Your task to perform on an android device: Search for apple airpods pro on target.com, select the first entry, add it to the cart, then select checkout. Image 0: 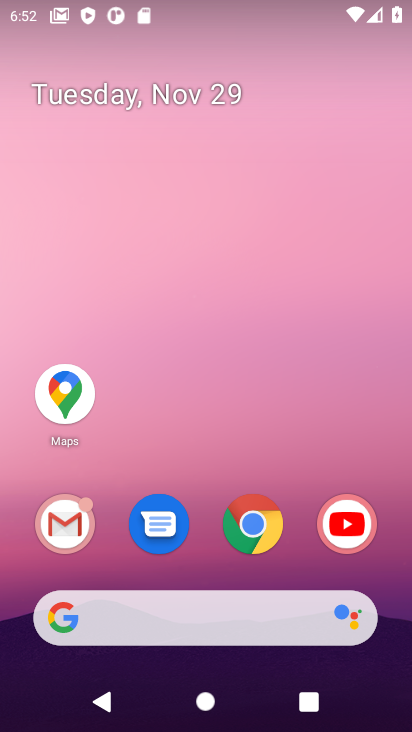
Step 0: click (254, 532)
Your task to perform on an android device: Search for apple airpods pro on target.com, select the first entry, add it to the cart, then select checkout. Image 1: 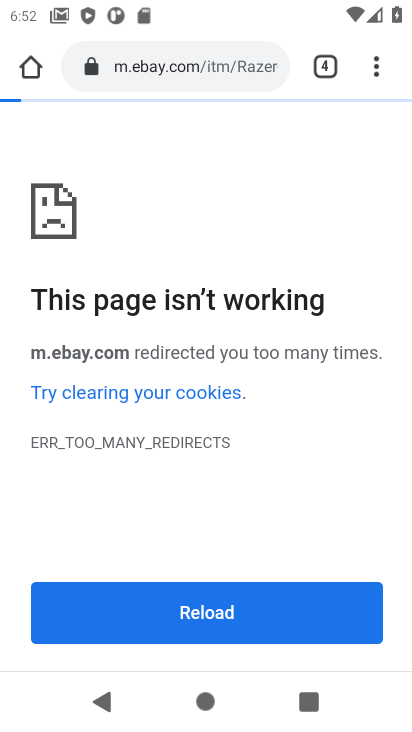
Step 1: click (155, 66)
Your task to perform on an android device: Search for apple airpods pro on target.com, select the first entry, add it to the cart, then select checkout. Image 2: 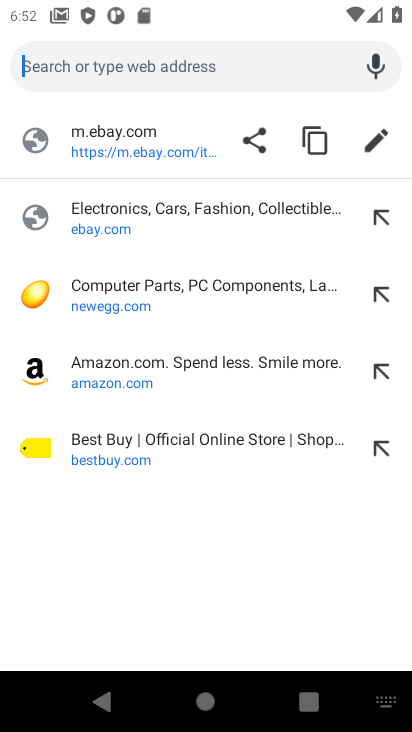
Step 2: type "target.com"
Your task to perform on an android device: Search for apple airpods pro on target.com, select the first entry, add it to the cart, then select checkout. Image 3: 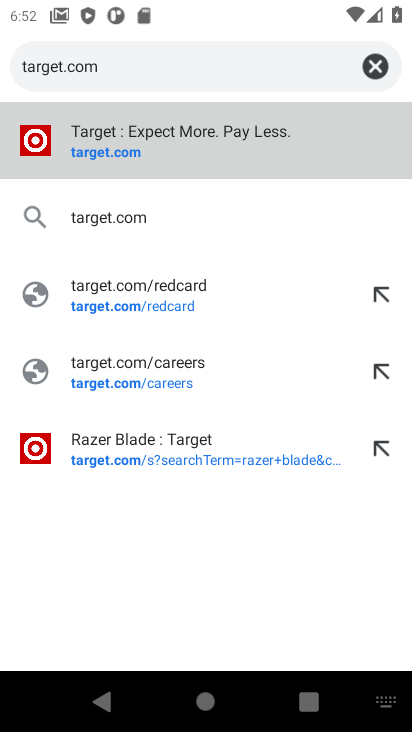
Step 3: click (95, 149)
Your task to perform on an android device: Search for apple airpods pro on target.com, select the first entry, add it to the cart, then select checkout. Image 4: 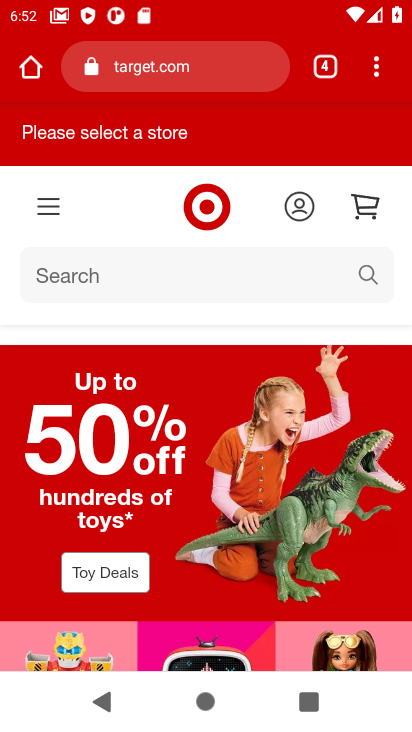
Step 4: click (48, 272)
Your task to perform on an android device: Search for apple airpods pro on target.com, select the first entry, add it to the cart, then select checkout. Image 5: 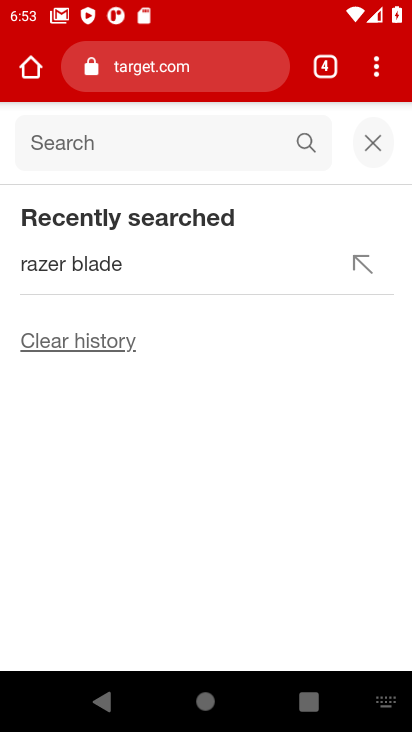
Step 5: type " apple airpods pro"
Your task to perform on an android device: Search for apple airpods pro on target.com, select the first entry, add it to the cart, then select checkout. Image 6: 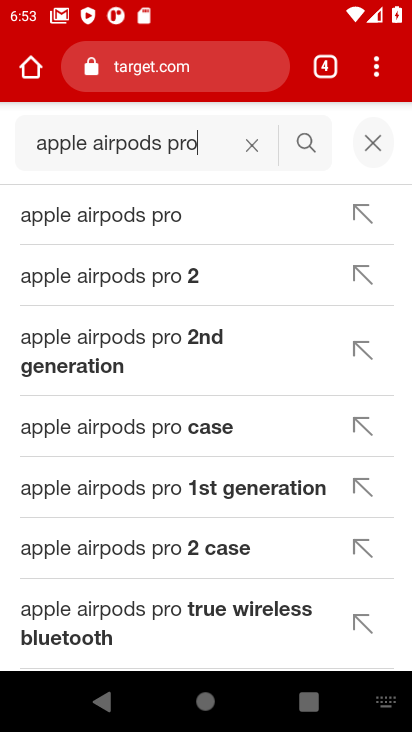
Step 6: click (122, 213)
Your task to perform on an android device: Search for apple airpods pro on target.com, select the first entry, add it to the cart, then select checkout. Image 7: 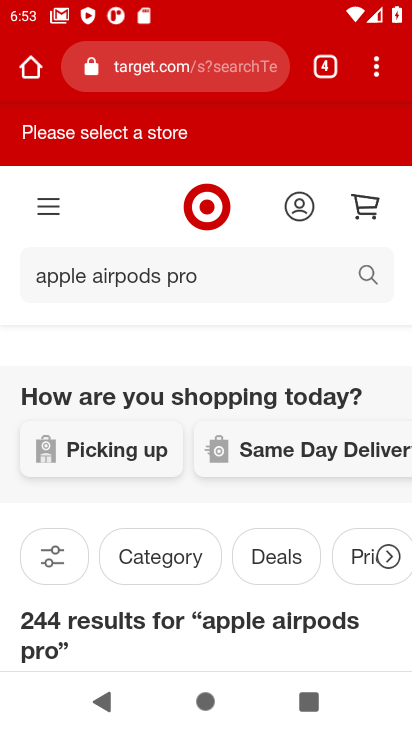
Step 7: drag from (225, 512) to (157, 233)
Your task to perform on an android device: Search for apple airpods pro on target.com, select the first entry, add it to the cart, then select checkout. Image 8: 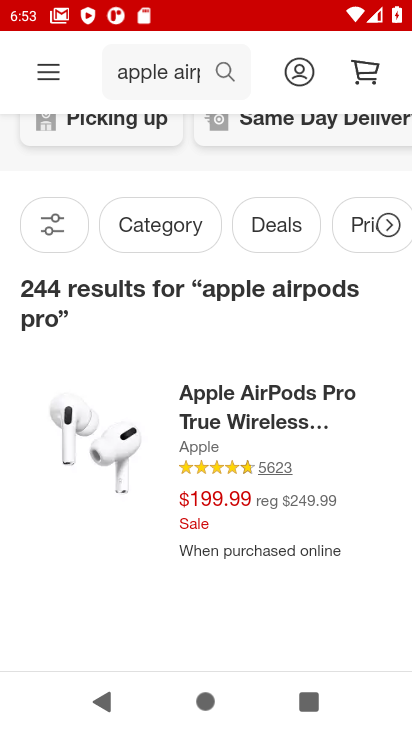
Step 8: click (199, 433)
Your task to perform on an android device: Search for apple airpods pro on target.com, select the first entry, add it to the cart, then select checkout. Image 9: 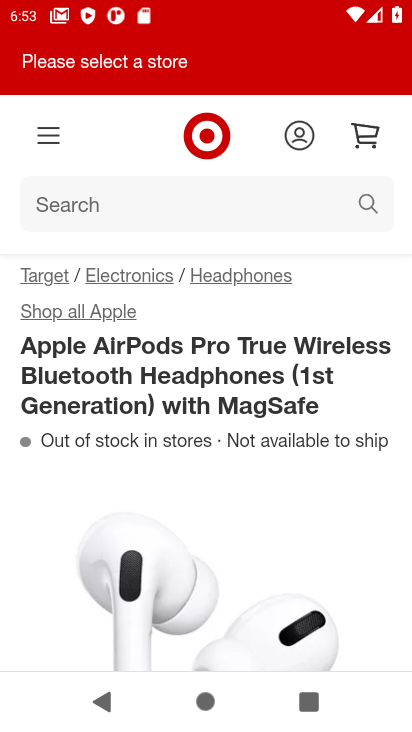
Step 9: drag from (235, 540) to (209, 205)
Your task to perform on an android device: Search for apple airpods pro on target.com, select the first entry, add it to the cart, then select checkout. Image 10: 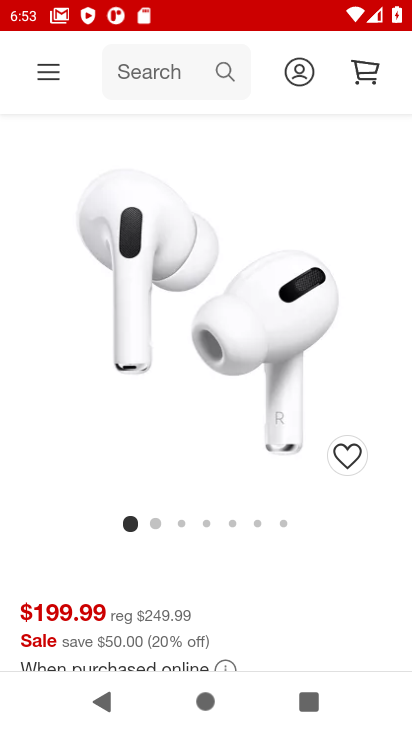
Step 10: drag from (221, 549) to (184, 234)
Your task to perform on an android device: Search for apple airpods pro on target.com, select the first entry, add it to the cart, then select checkout. Image 11: 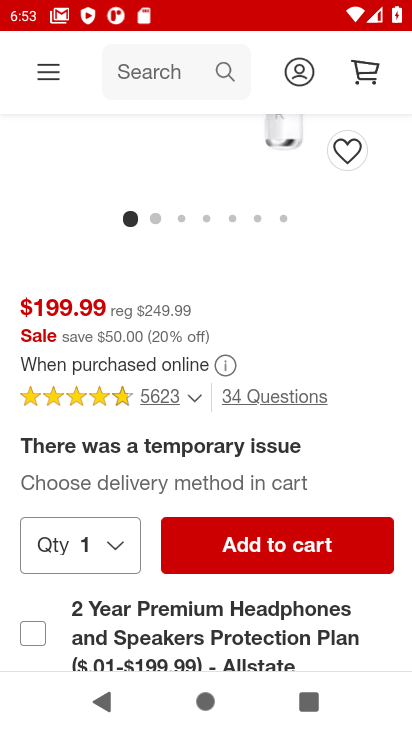
Step 11: click (256, 541)
Your task to perform on an android device: Search for apple airpods pro on target.com, select the first entry, add it to the cart, then select checkout. Image 12: 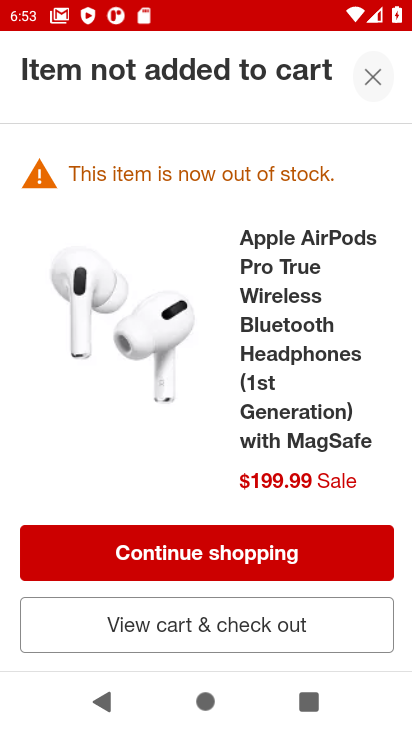
Step 12: click (209, 641)
Your task to perform on an android device: Search for apple airpods pro on target.com, select the first entry, add it to the cart, then select checkout. Image 13: 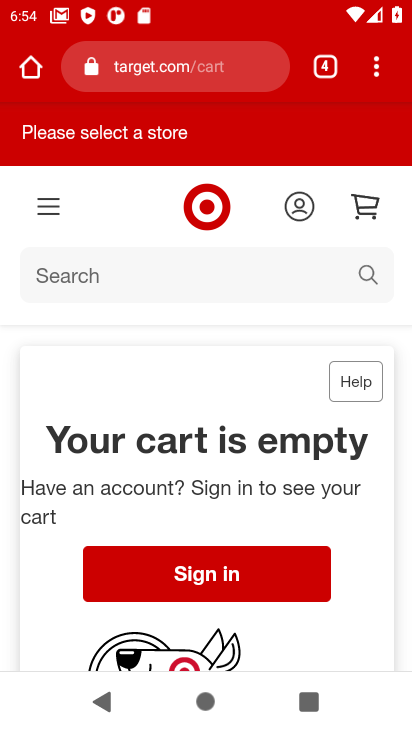
Step 13: task complete